Your task to perform on an android device: change the clock display to show seconds Image 0: 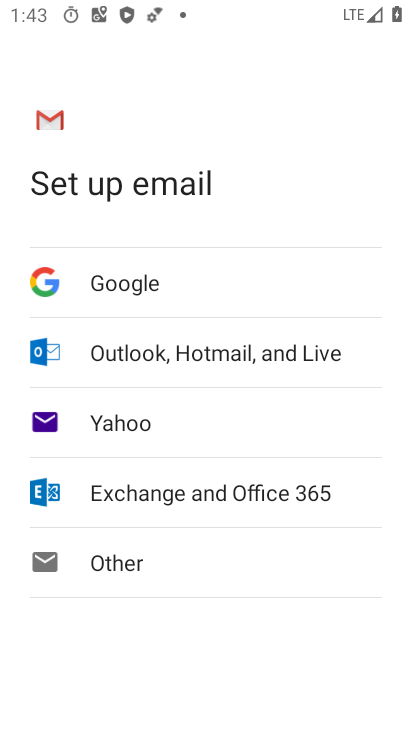
Step 0: press home button
Your task to perform on an android device: change the clock display to show seconds Image 1: 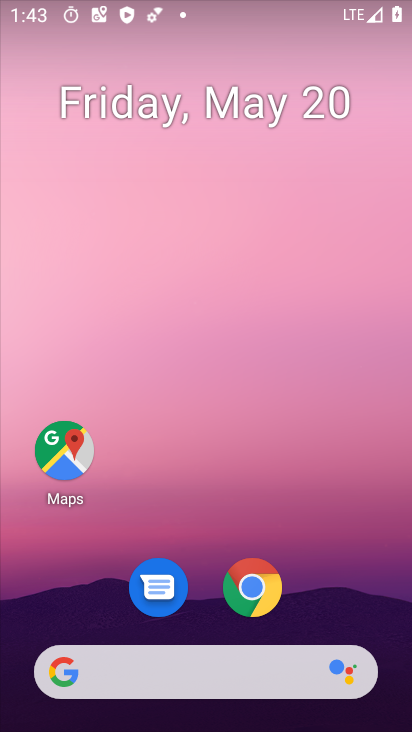
Step 1: drag from (321, 646) to (298, 195)
Your task to perform on an android device: change the clock display to show seconds Image 2: 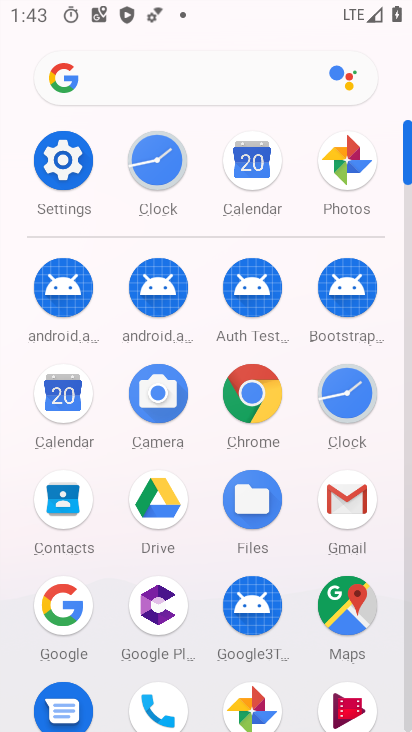
Step 2: click (153, 154)
Your task to perform on an android device: change the clock display to show seconds Image 3: 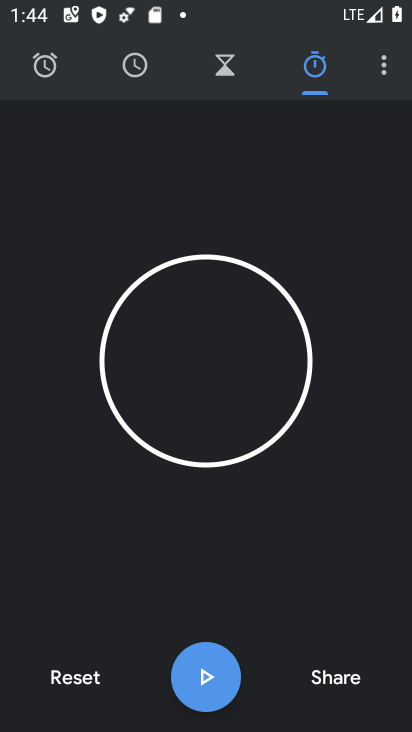
Step 3: click (389, 62)
Your task to perform on an android device: change the clock display to show seconds Image 4: 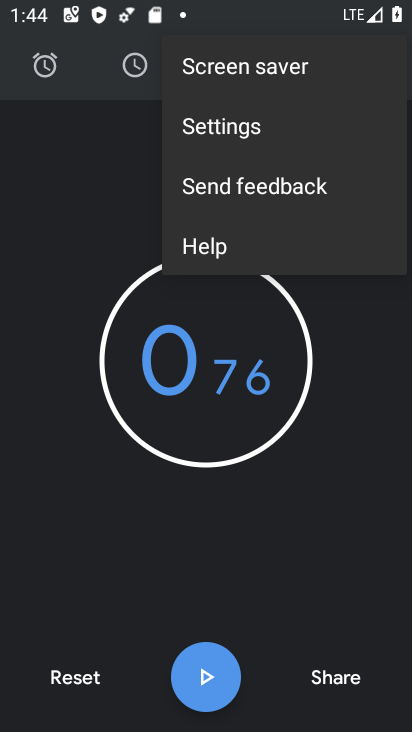
Step 4: click (272, 136)
Your task to perform on an android device: change the clock display to show seconds Image 5: 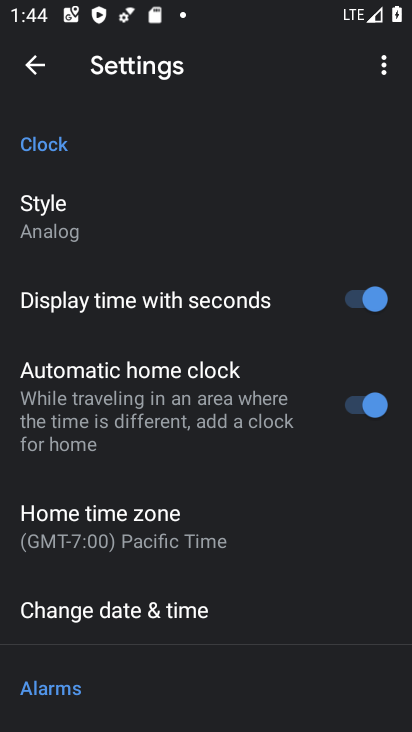
Step 5: click (365, 293)
Your task to perform on an android device: change the clock display to show seconds Image 6: 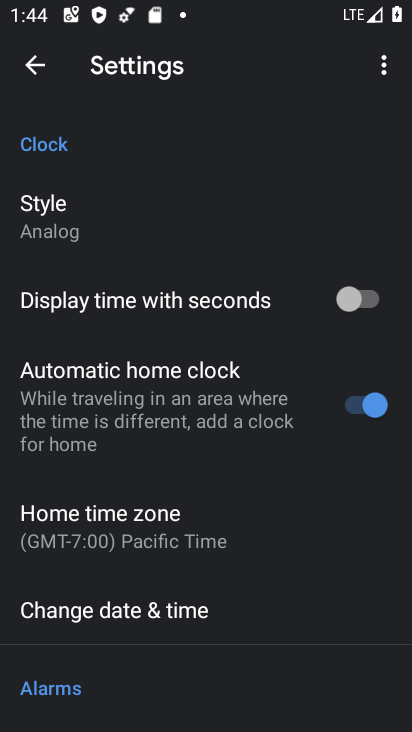
Step 6: task complete